Your task to perform on an android device: Open Chrome and go to the settings page Image 0: 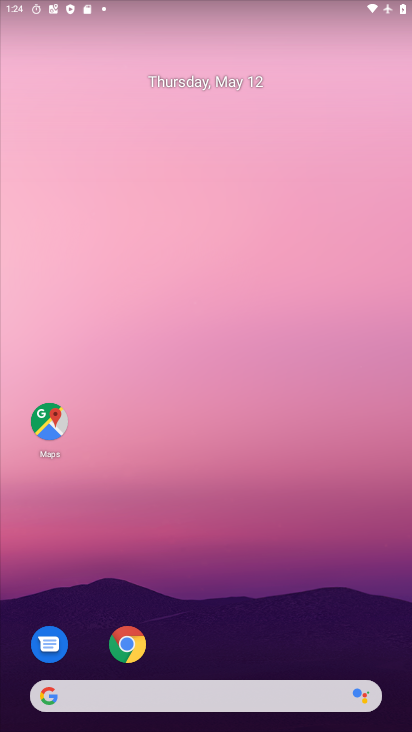
Step 0: drag from (266, 535) to (239, 163)
Your task to perform on an android device: Open Chrome and go to the settings page Image 1: 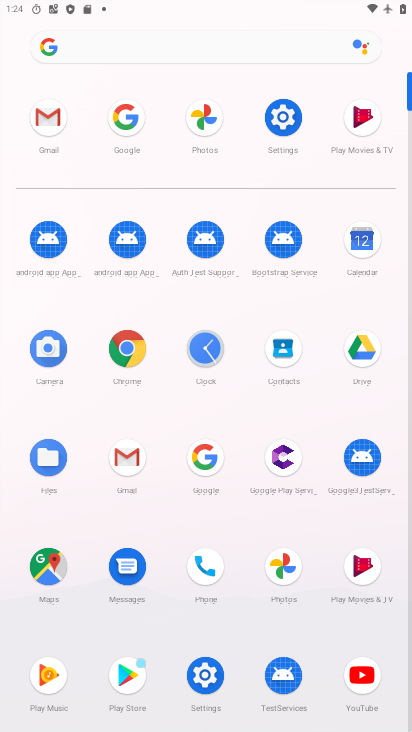
Step 1: click (127, 355)
Your task to perform on an android device: Open Chrome and go to the settings page Image 2: 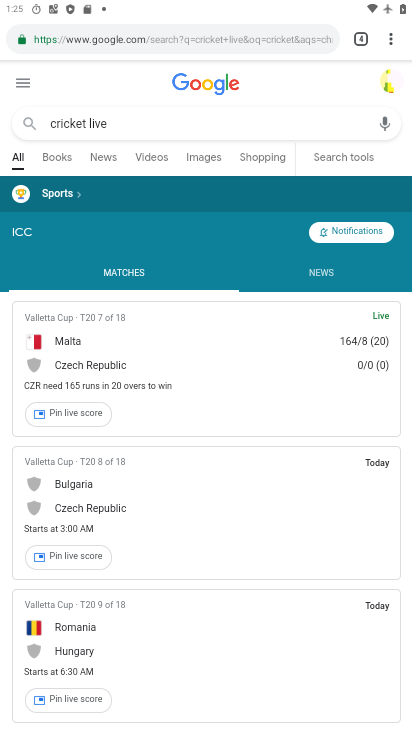
Step 2: click (383, 40)
Your task to perform on an android device: Open Chrome and go to the settings page Image 3: 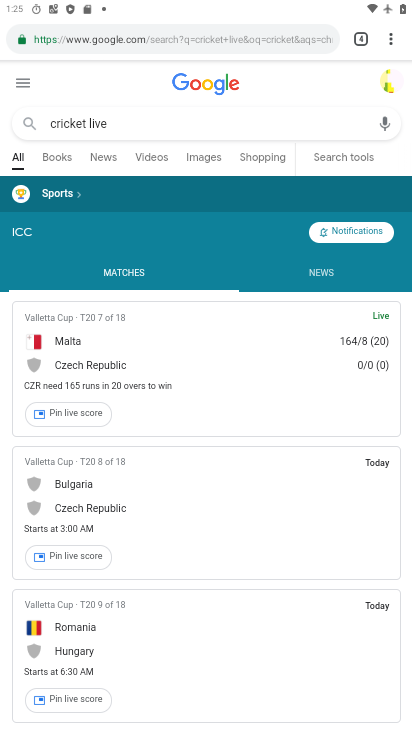
Step 3: click (393, 47)
Your task to perform on an android device: Open Chrome and go to the settings page Image 4: 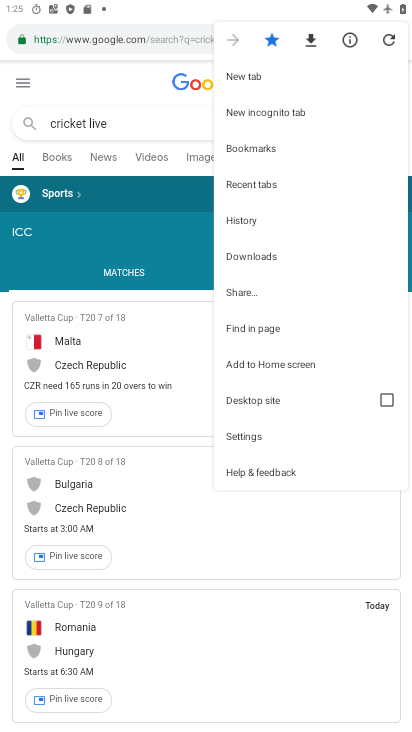
Step 4: click (259, 430)
Your task to perform on an android device: Open Chrome and go to the settings page Image 5: 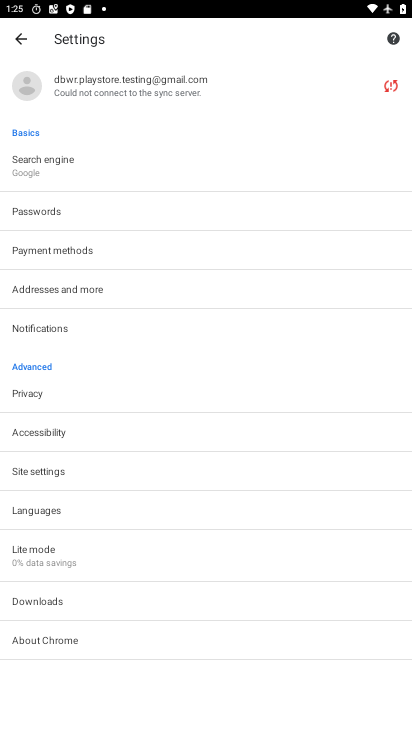
Step 5: task complete